Your task to perform on an android device: Open internet settings Image 0: 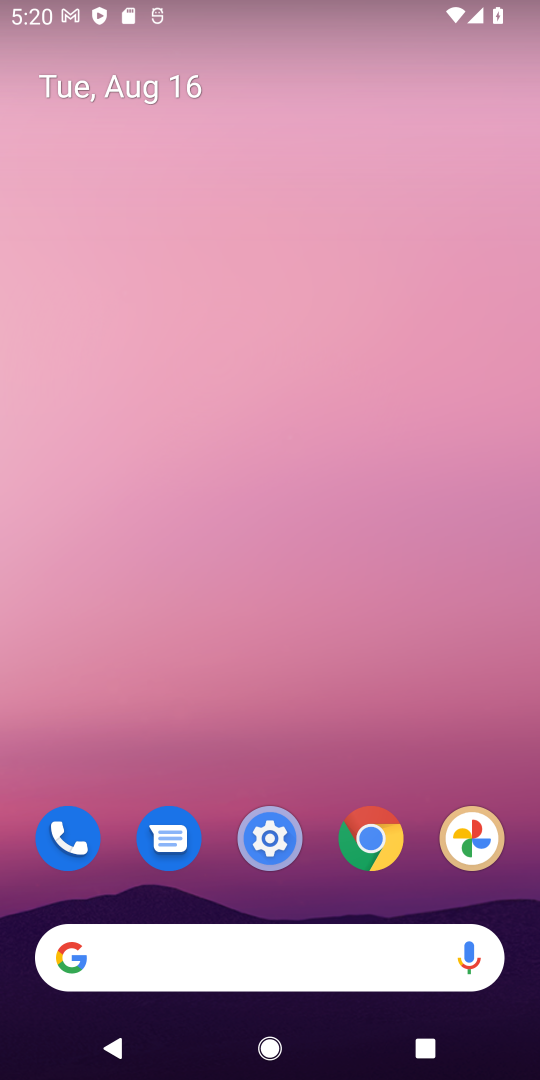
Step 0: click (267, 819)
Your task to perform on an android device: Open internet settings Image 1: 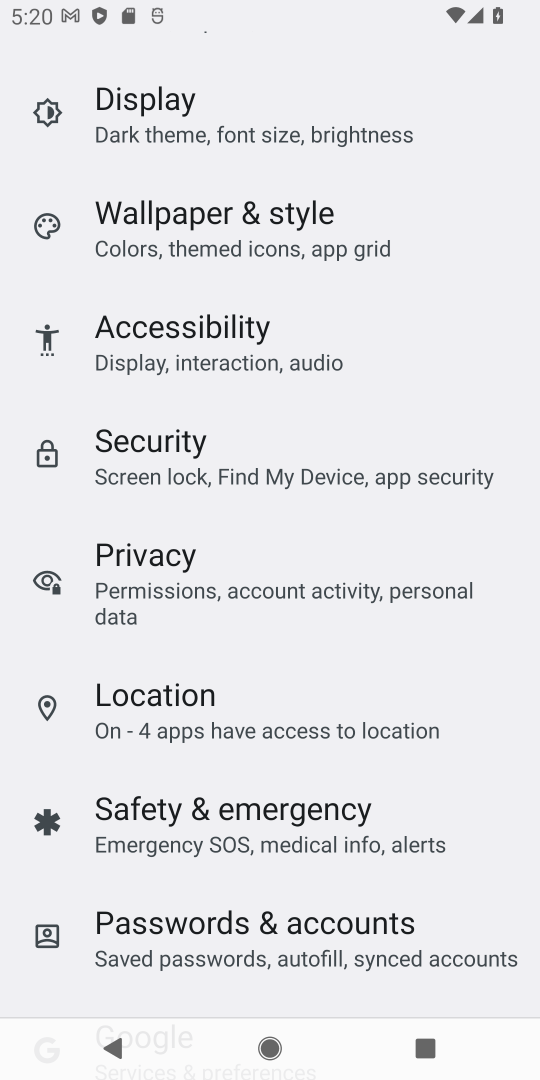
Step 1: drag from (292, 214) to (317, 1070)
Your task to perform on an android device: Open internet settings Image 2: 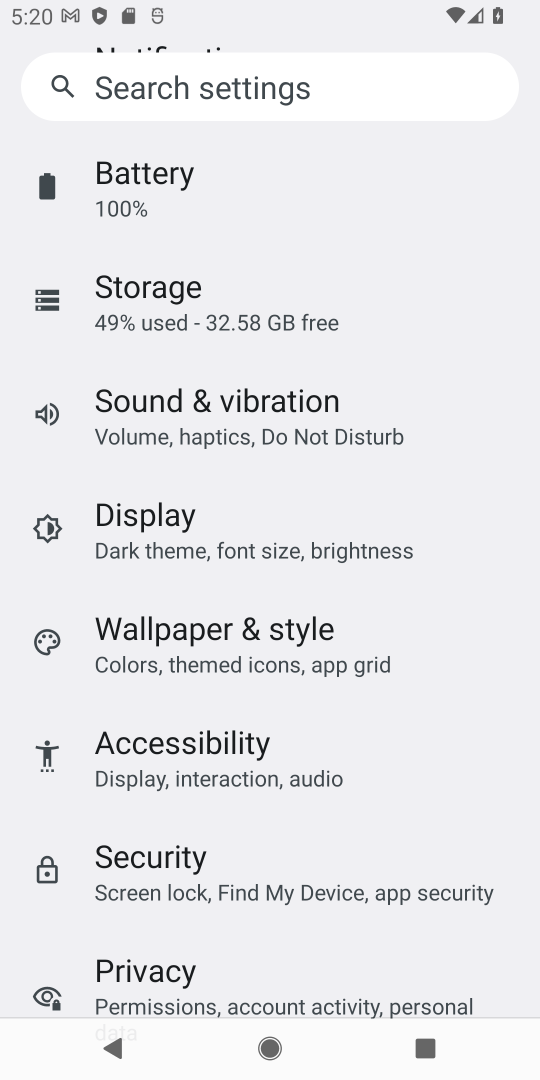
Step 2: drag from (331, 405) to (243, 1000)
Your task to perform on an android device: Open internet settings Image 3: 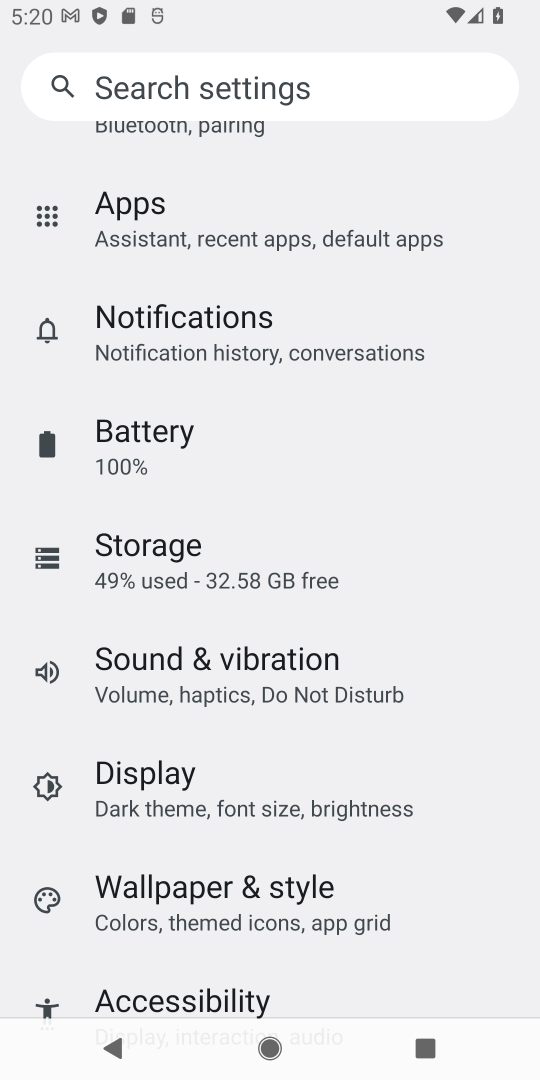
Step 3: drag from (362, 471) to (225, 1054)
Your task to perform on an android device: Open internet settings Image 4: 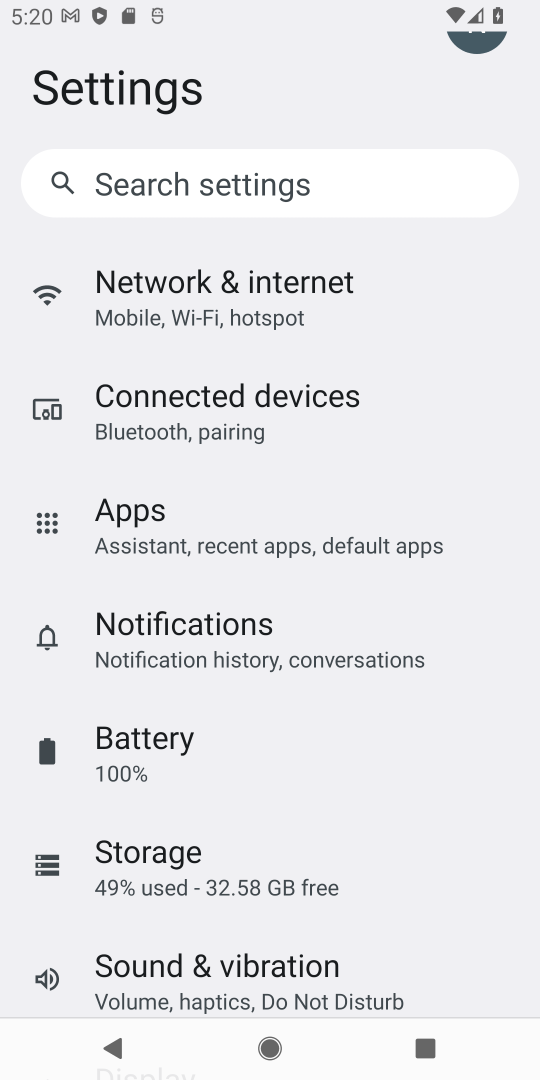
Step 4: click (277, 281)
Your task to perform on an android device: Open internet settings Image 5: 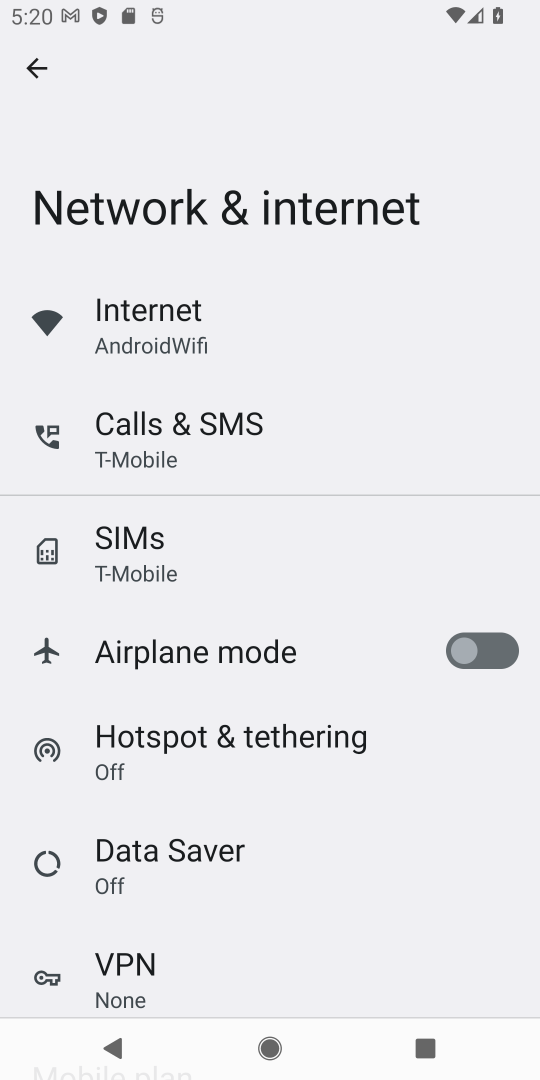
Step 5: task complete